Your task to perform on an android device: check battery use Image 0: 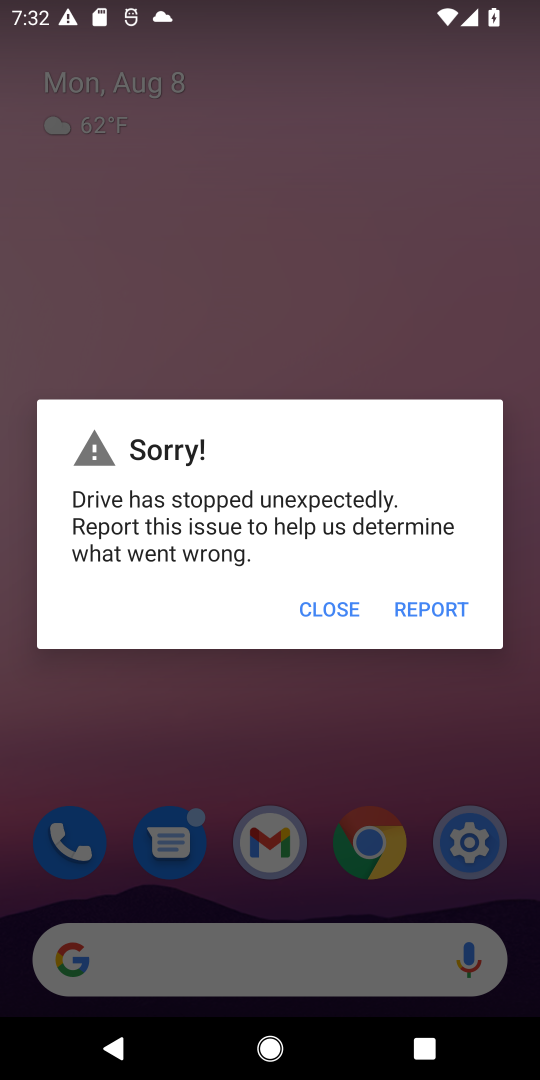
Step 0: press home button
Your task to perform on an android device: check battery use Image 1: 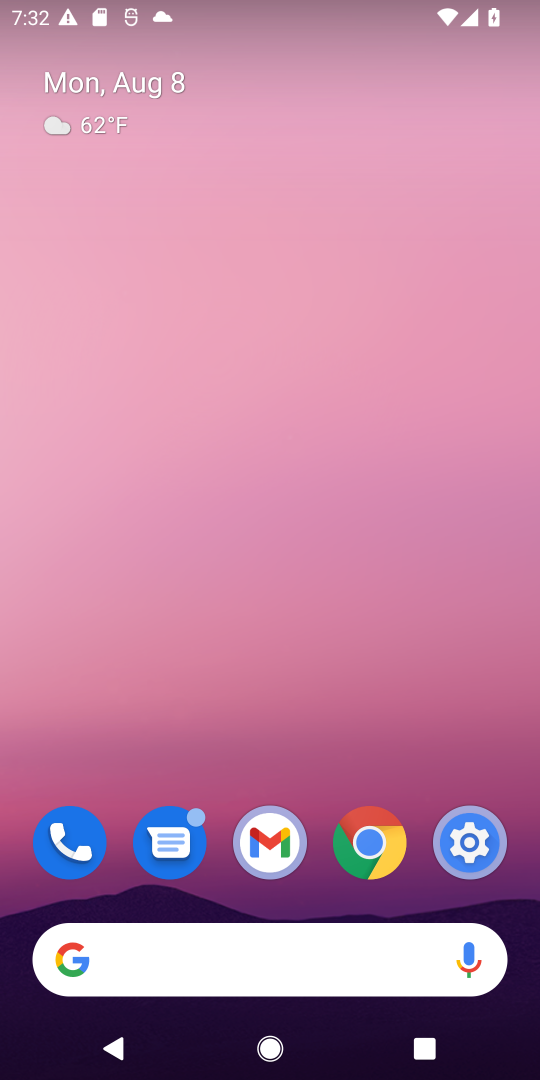
Step 1: click (466, 841)
Your task to perform on an android device: check battery use Image 2: 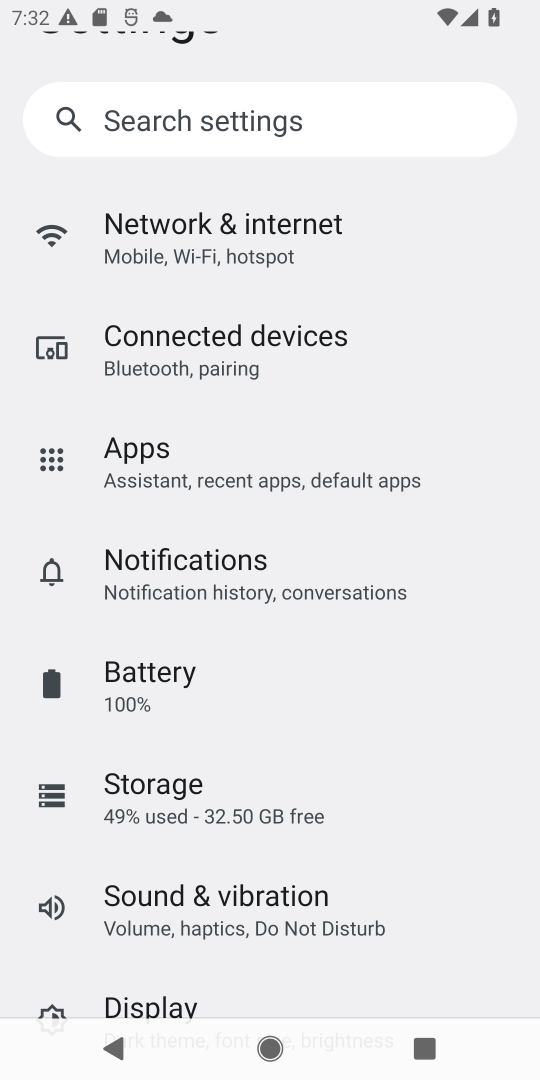
Step 2: click (216, 680)
Your task to perform on an android device: check battery use Image 3: 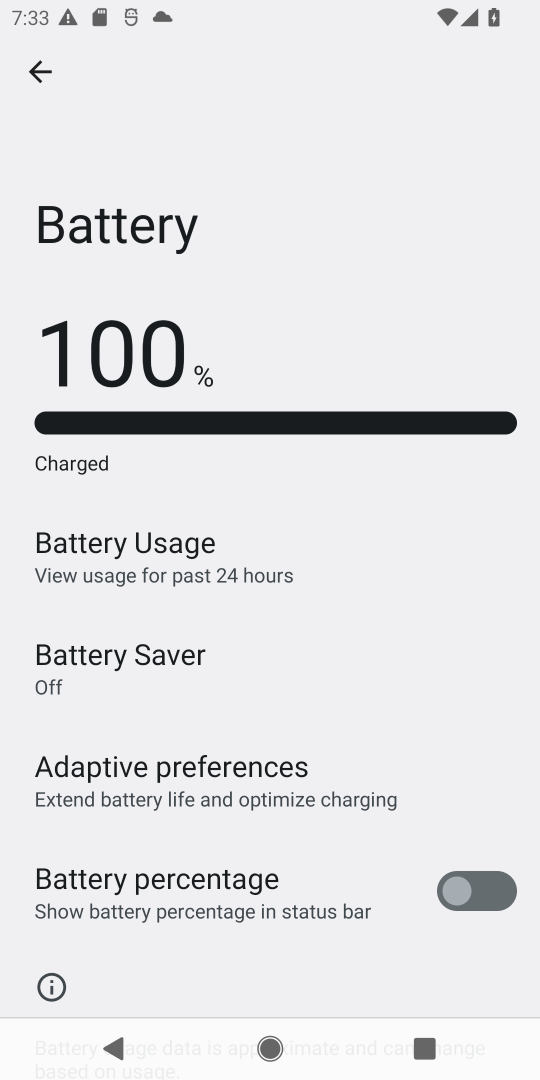
Step 3: task complete